Your task to perform on an android device: Check the weather Image 0: 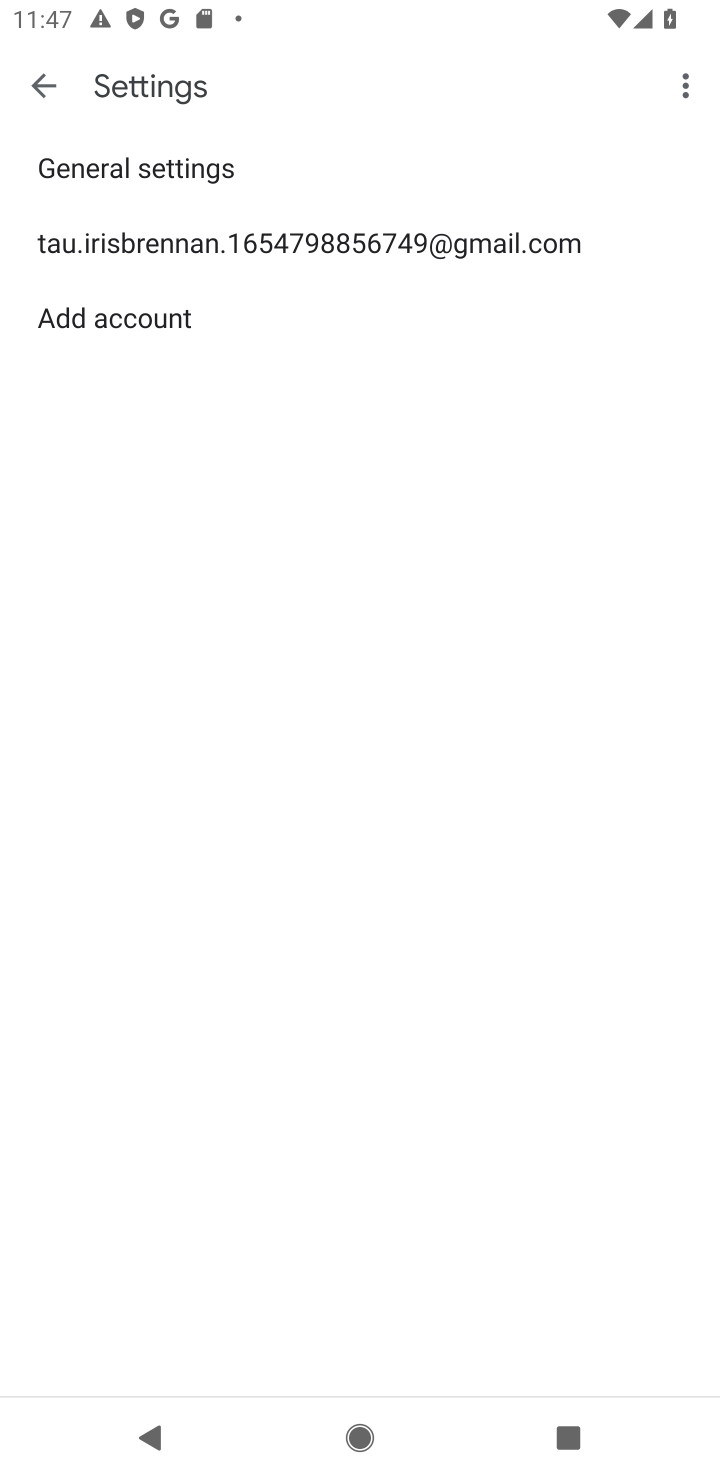
Step 0: press home button
Your task to perform on an android device: Check the weather Image 1: 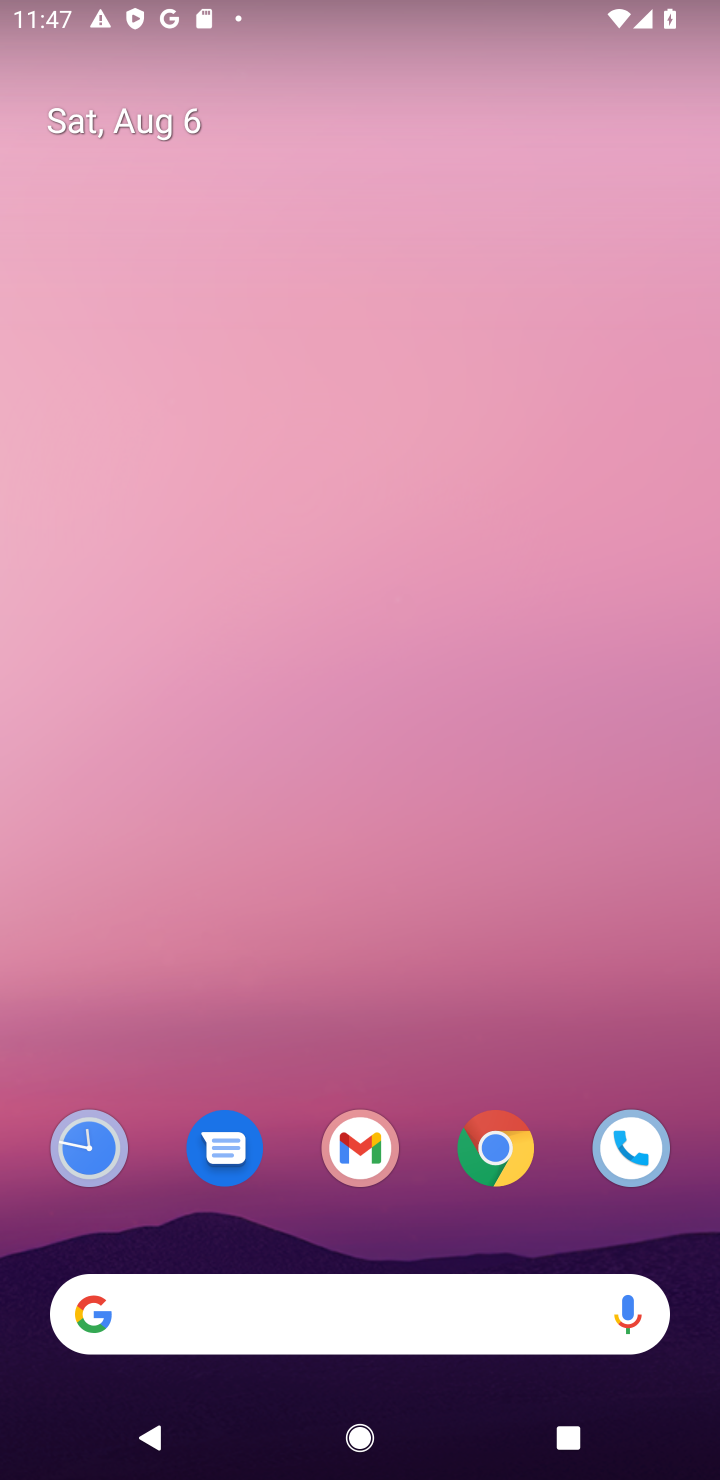
Step 1: click (379, 1294)
Your task to perform on an android device: Check the weather Image 2: 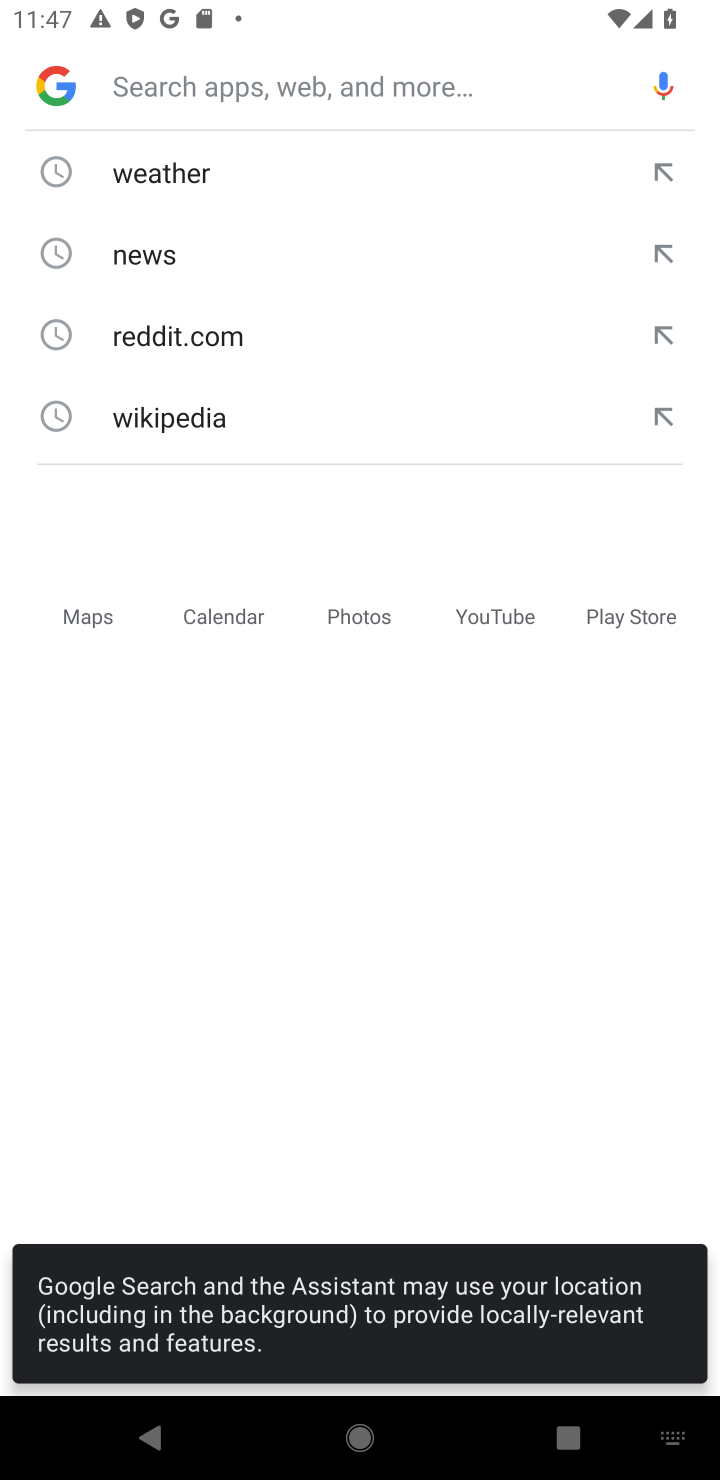
Step 2: click (147, 165)
Your task to perform on an android device: Check the weather Image 3: 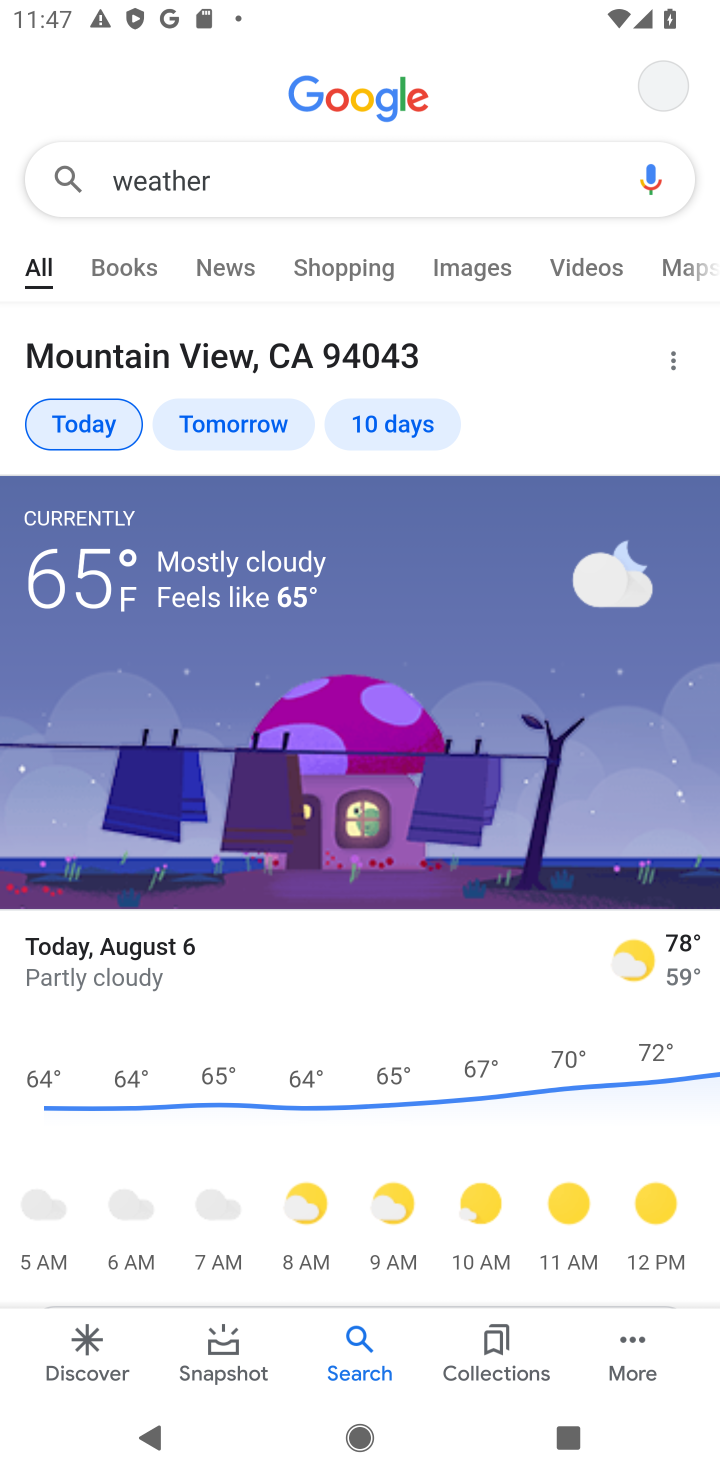
Step 3: task complete